Your task to perform on an android device: Open Youtube and go to the subscriptions tab Image 0: 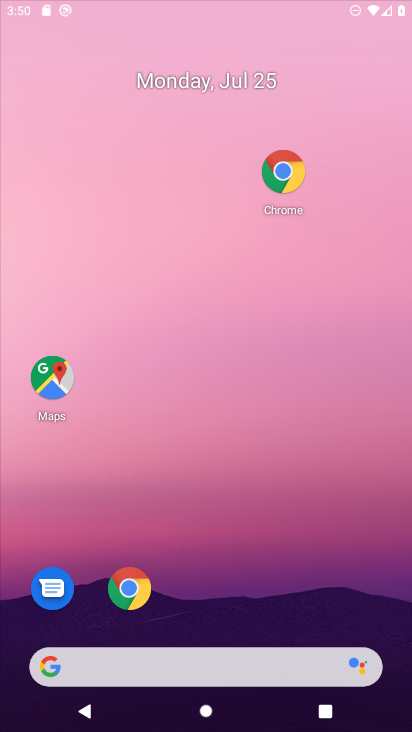
Step 0: drag from (293, 717) to (288, 144)
Your task to perform on an android device: Open Youtube and go to the subscriptions tab Image 1: 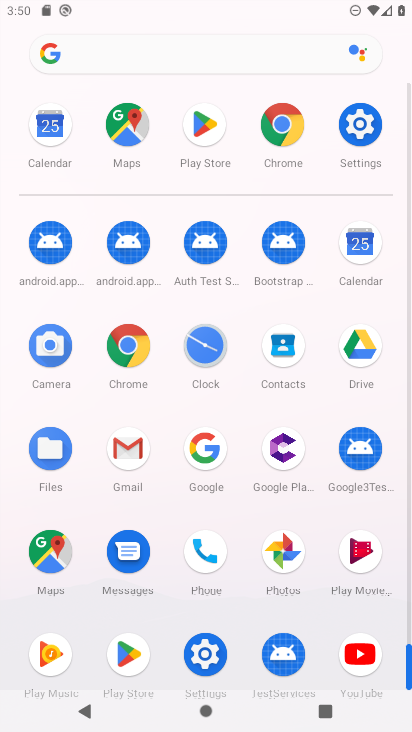
Step 1: click (356, 650)
Your task to perform on an android device: Open Youtube and go to the subscriptions tab Image 2: 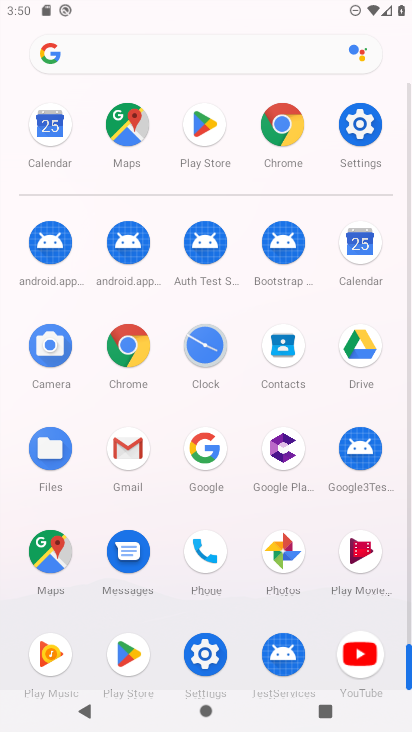
Step 2: click (357, 650)
Your task to perform on an android device: Open Youtube and go to the subscriptions tab Image 3: 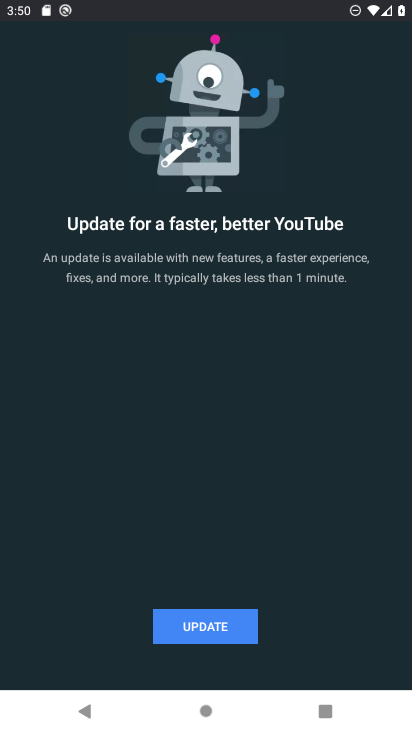
Step 3: drag from (265, 609) to (195, 626)
Your task to perform on an android device: Open Youtube and go to the subscriptions tab Image 4: 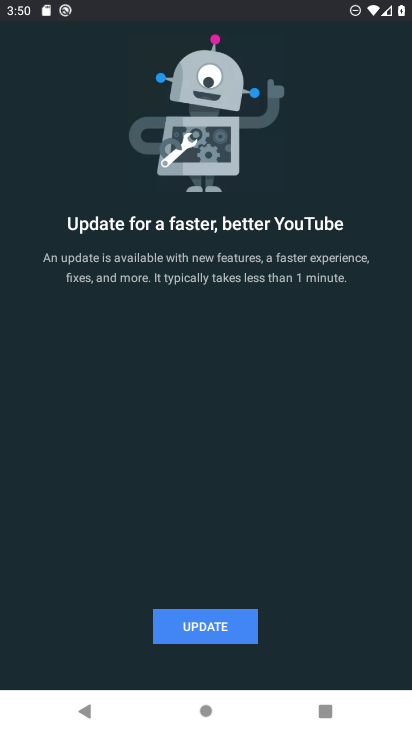
Step 4: click (195, 621)
Your task to perform on an android device: Open Youtube and go to the subscriptions tab Image 5: 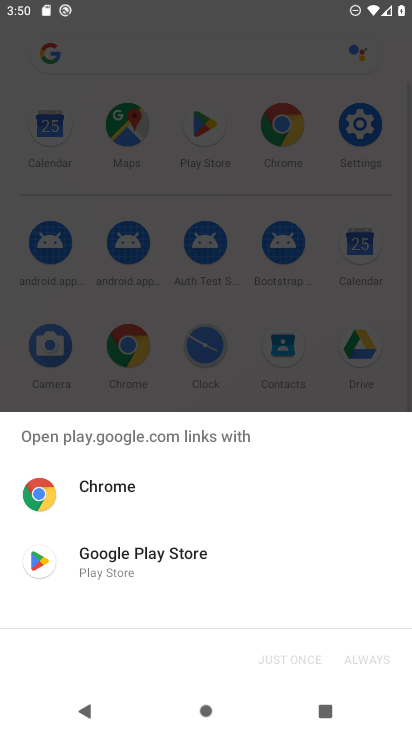
Step 5: click (114, 550)
Your task to perform on an android device: Open Youtube and go to the subscriptions tab Image 6: 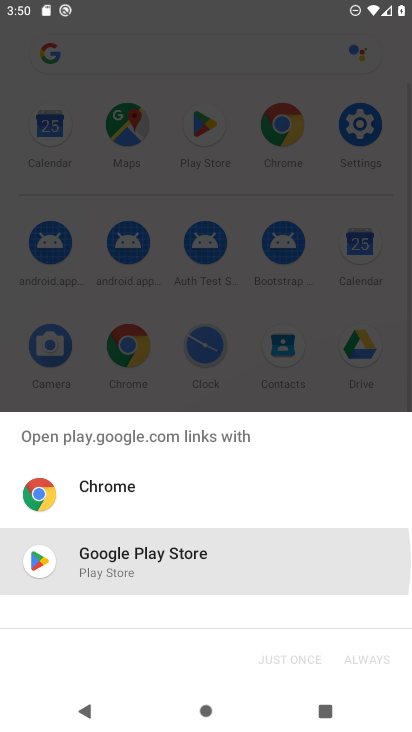
Step 6: click (114, 551)
Your task to perform on an android device: Open Youtube and go to the subscriptions tab Image 7: 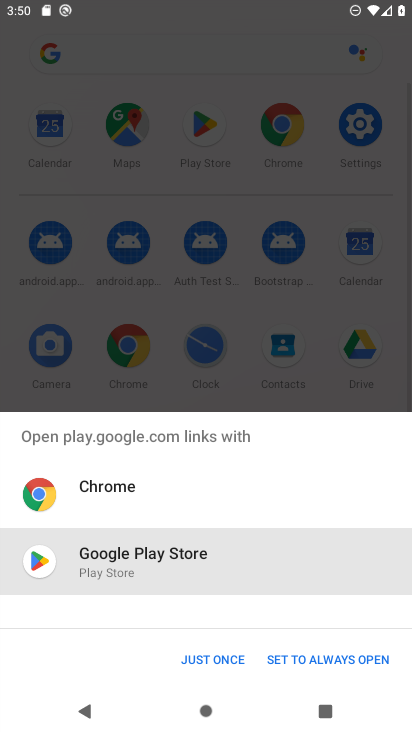
Step 7: click (113, 558)
Your task to perform on an android device: Open Youtube and go to the subscriptions tab Image 8: 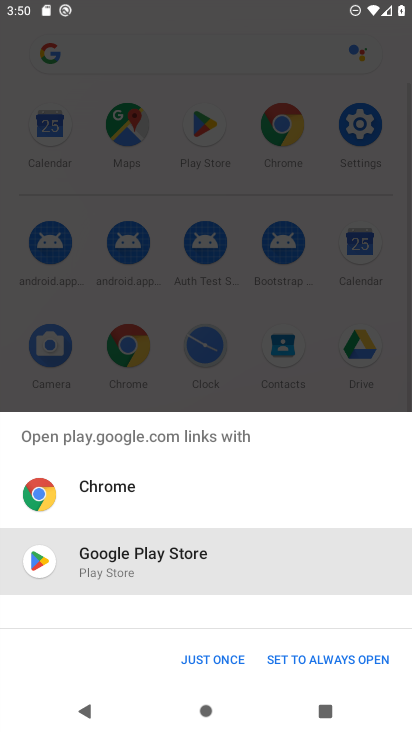
Step 8: click (108, 556)
Your task to perform on an android device: Open Youtube and go to the subscriptions tab Image 9: 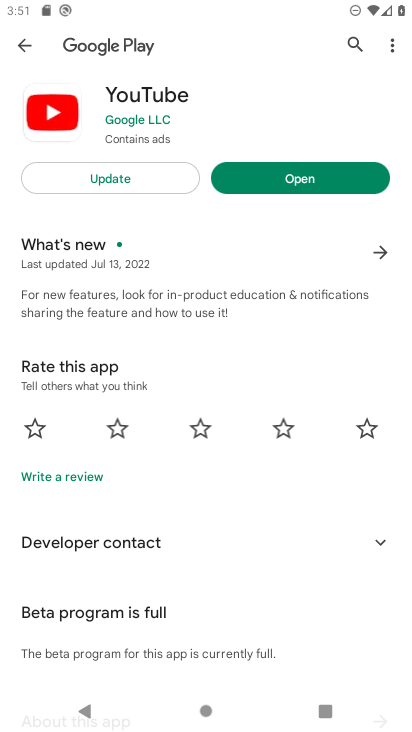
Step 9: click (188, 172)
Your task to perform on an android device: Open Youtube and go to the subscriptions tab Image 10: 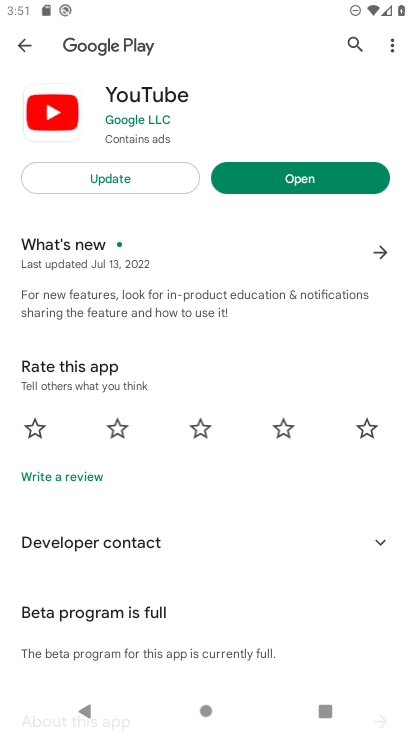
Step 10: click (187, 173)
Your task to perform on an android device: Open Youtube and go to the subscriptions tab Image 11: 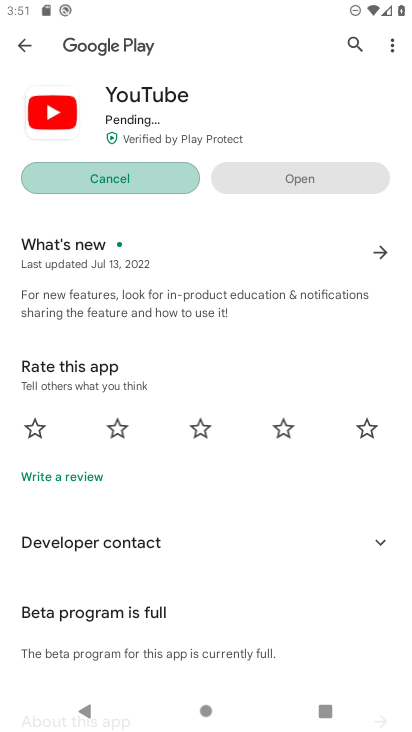
Step 11: click (187, 174)
Your task to perform on an android device: Open Youtube and go to the subscriptions tab Image 12: 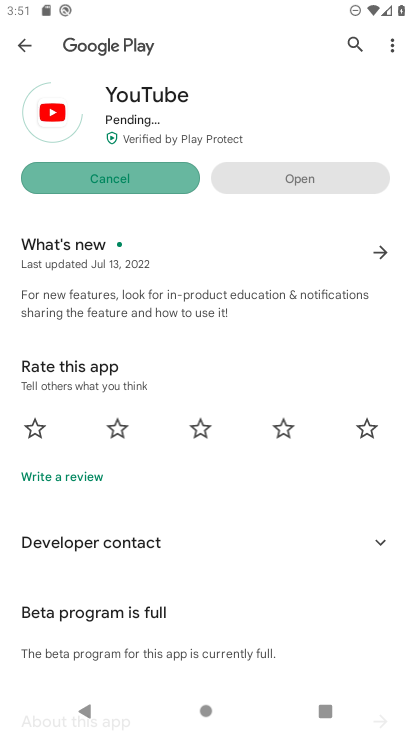
Step 12: click (186, 174)
Your task to perform on an android device: Open Youtube and go to the subscriptions tab Image 13: 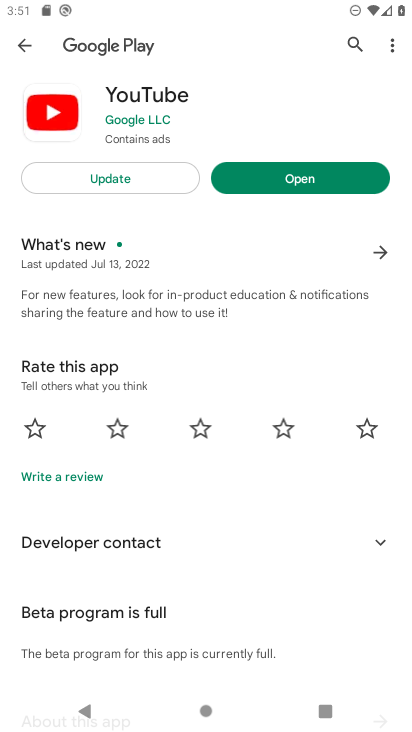
Step 13: click (85, 180)
Your task to perform on an android device: Open Youtube and go to the subscriptions tab Image 14: 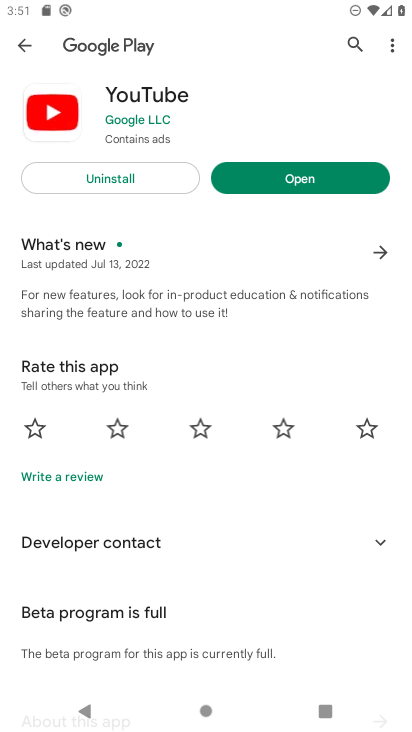
Step 14: click (136, 177)
Your task to perform on an android device: Open Youtube and go to the subscriptions tab Image 15: 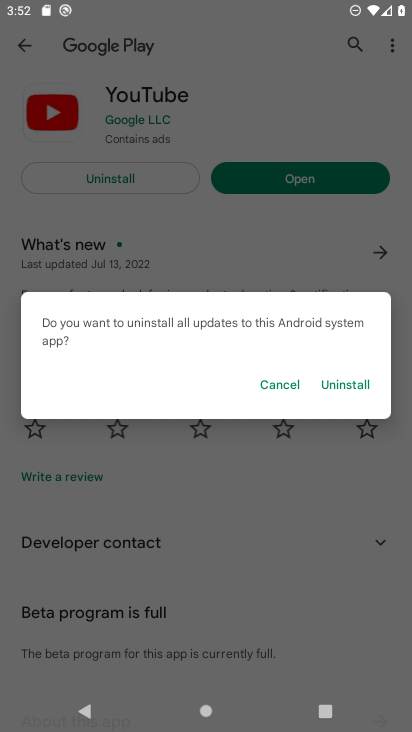
Step 15: click (341, 381)
Your task to perform on an android device: Open Youtube and go to the subscriptions tab Image 16: 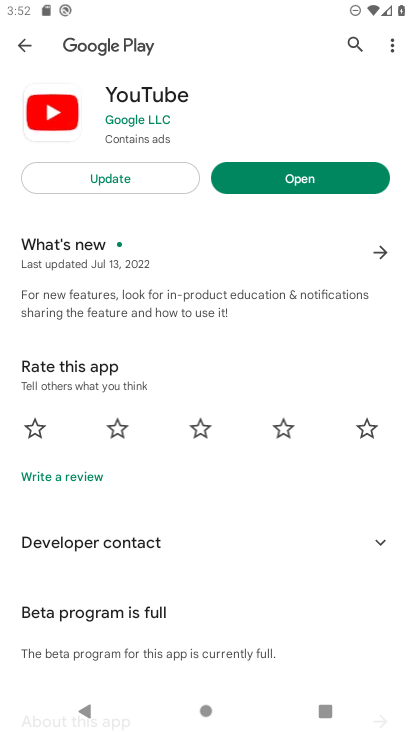
Step 16: click (271, 183)
Your task to perform on an android device: Open Youtube and go to the subscriptions tab Image 17: 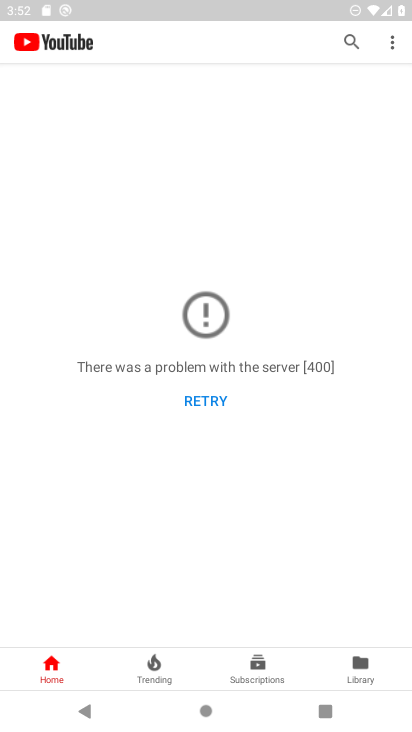
Step 17: click (278, 659)
Your task to perform on an android device: Open Youtube and go to the subscriptions tab Image 18: 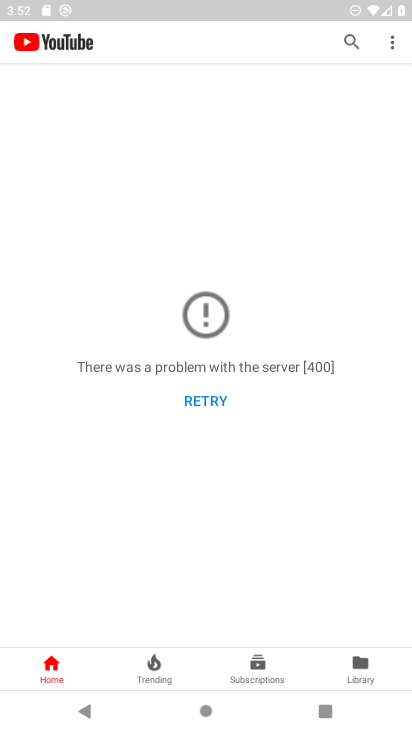
Step 18: click (270, 657)
Your task to perform on an android device: Open Youtube and go to the subscriptions tab Image 19: 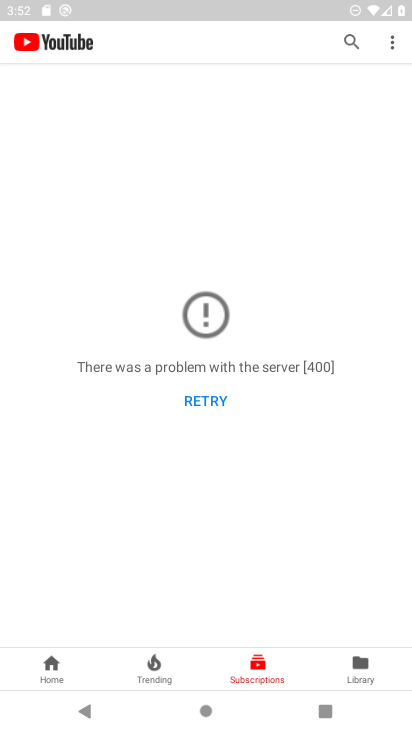
Step 19: click (269, 659)
Your task to perform on an android device: Open Youtube and go to the subscriptions tab Image 20: 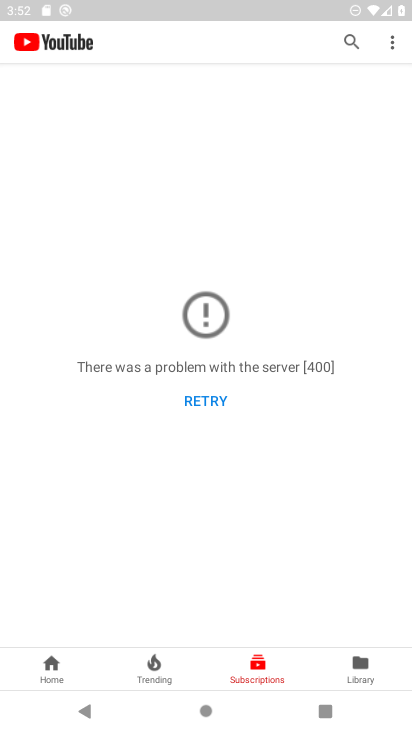
Step 20: task complete